Your task to perform on an android device: toggle airplane mode Image 0: 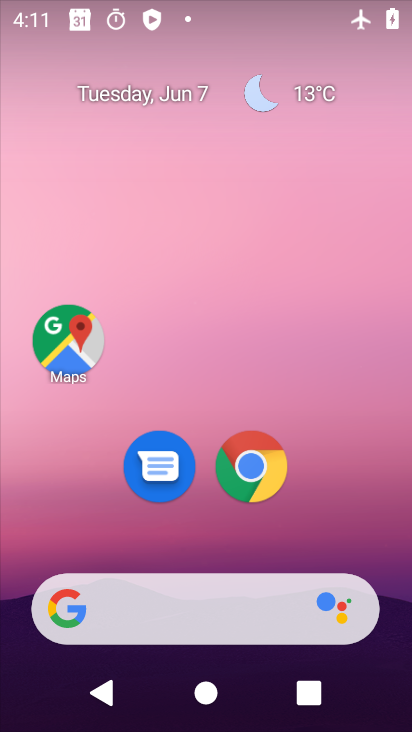
Step 0: drag from (397, 582) to (255, 38)
Your task to perform on an android device: toggle airplane mode Image 1: 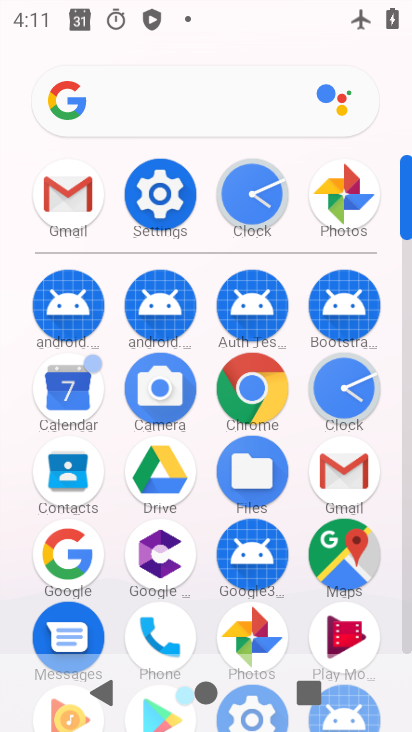
Step 1: click (171, 196)
Your task to perform on an android device: toggle airplane mode Image 2: 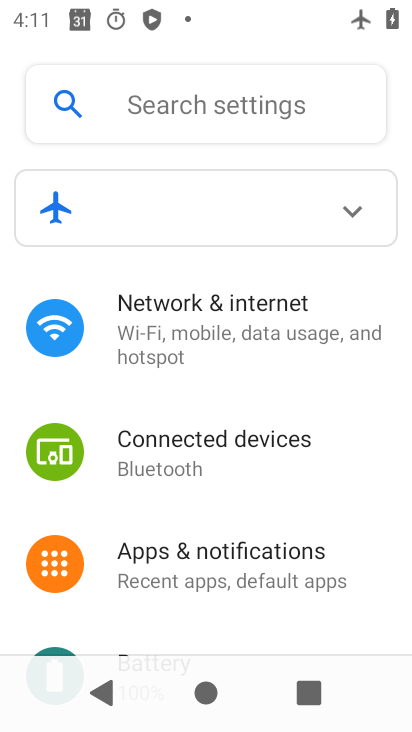
Step 2: click (235, 341)
Your task to perform on an android device: toggle airplane mode Image 3: 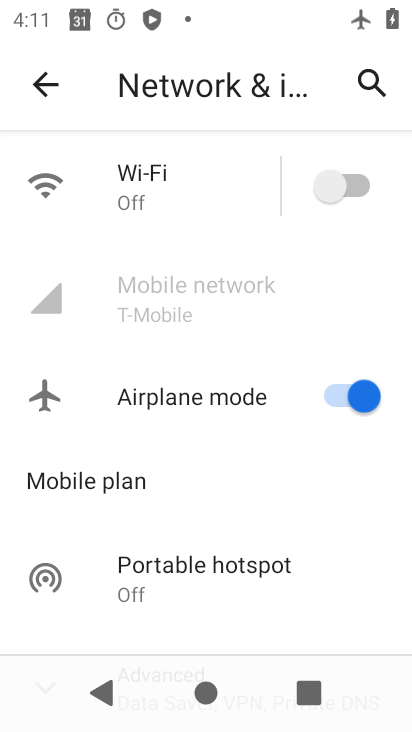
Step 3: click (349, 395)
Your task to perform on an android device: toggle airplane mode Image 4: 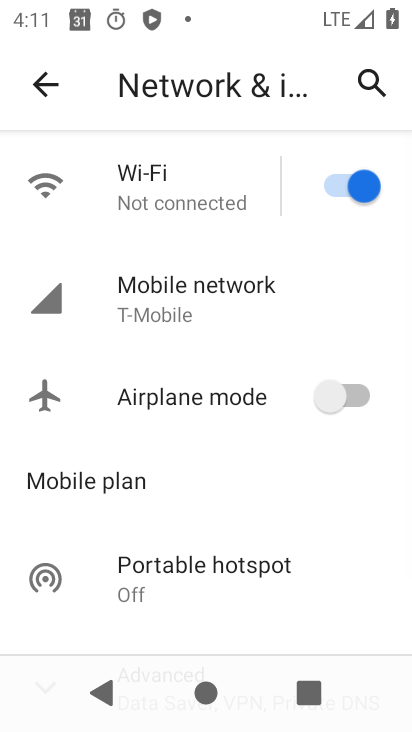
Step 4: task complete